Your task to perform on an android device: Open the phone app and click the voicemail tab. Image 0: 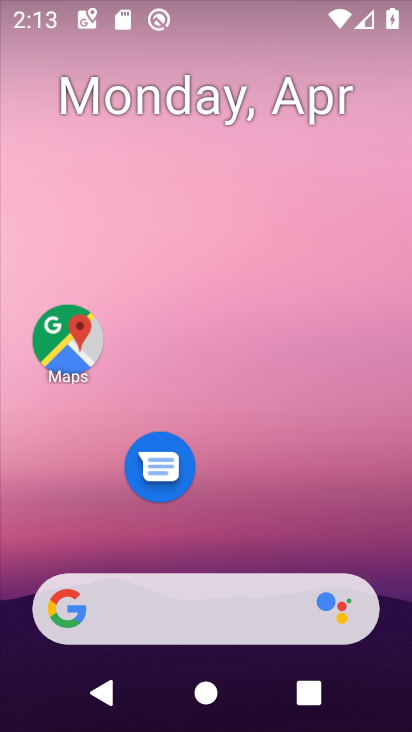
Step 0: drag from (340, 515) to (359, 57)
Your task to perform on an android device: Open the phone app and click the voicemail tab. Image 1: 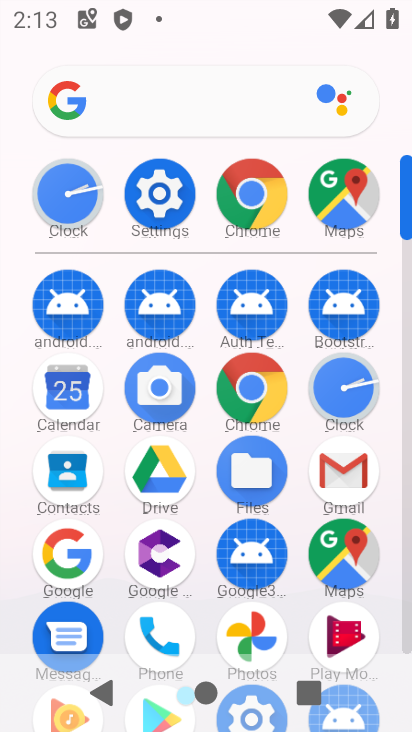
Step 1: click (174, 621)
Your task to perform on an android device: Open the phone app and click the voicemail tab. Image 2: 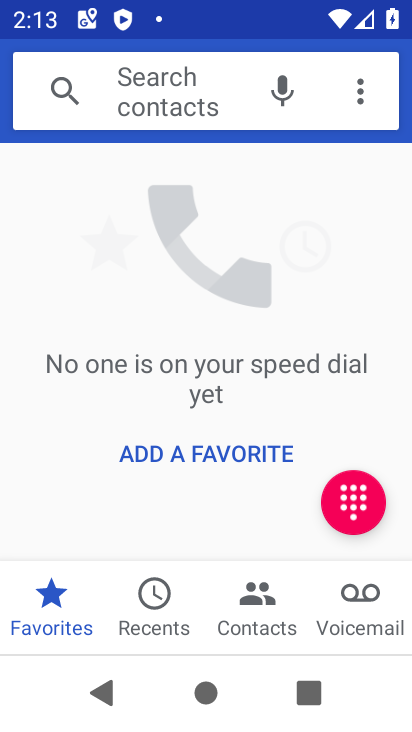
Step 2: click (357, 611)
Your task to perform on an android device: Open the phone app and click the voicemail tab. Image 3: 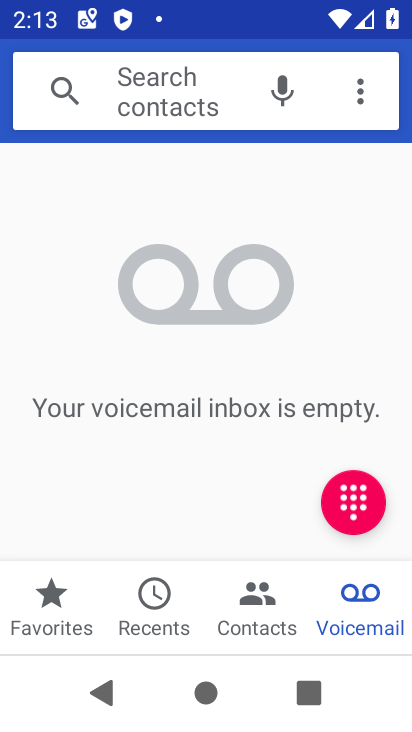
Step 3: task complete